Your task to perform on an android device: manage bookmarks in the chrome app Image 0: 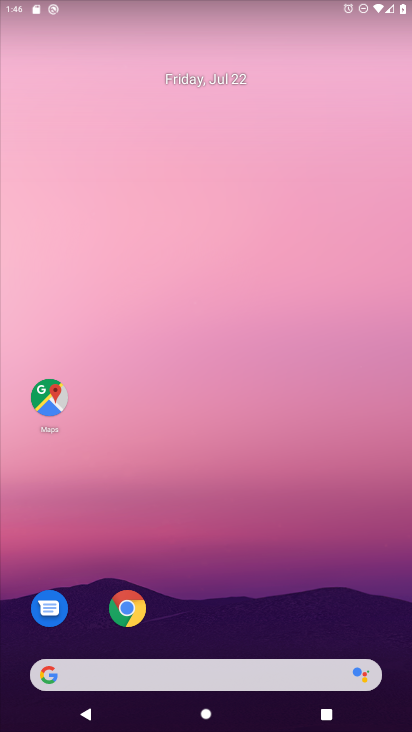
Step 0: drag from (321, 628) to (171, 16)
Your task to perform on an android device: manage bookmarks in the chrome app Image 1: 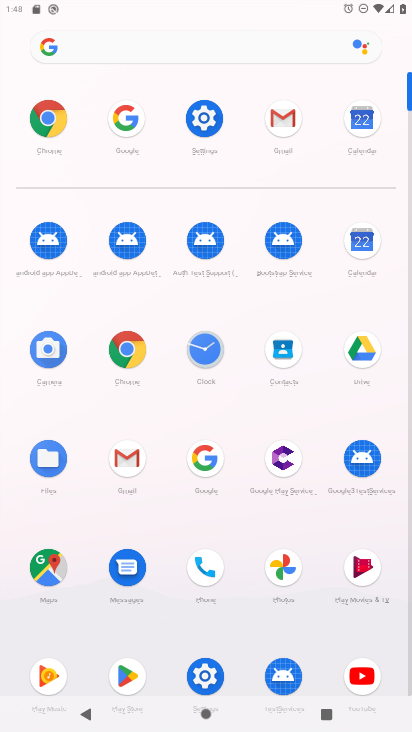
Step 1: click (125, 361)
Your task to perform on an android device: manage bookmarks in the chrome app Image 2: 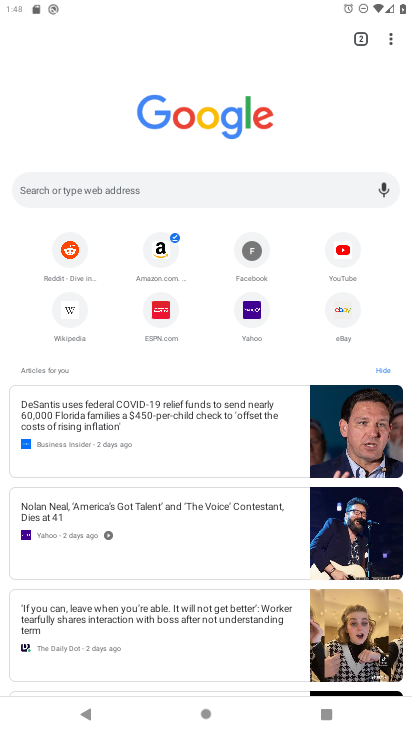
Step 2: click (393, 35)
Your task to perform on an android device: manage bookmarks in the chrome app Image 3: 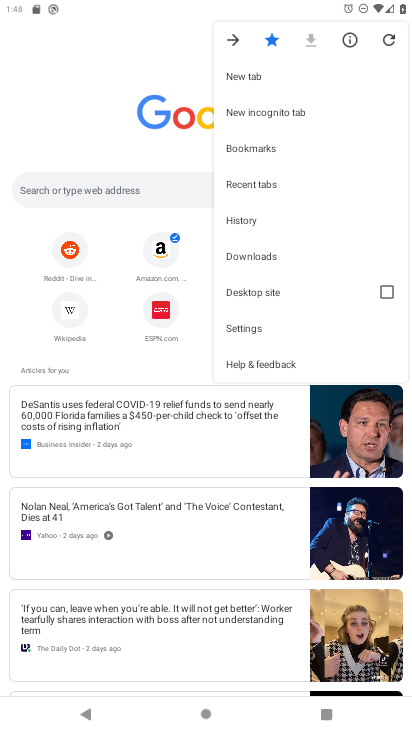
Step 3: click (256, 157)
Your task to perform on an android device: manage bookmarks in the chrome app Image 4: 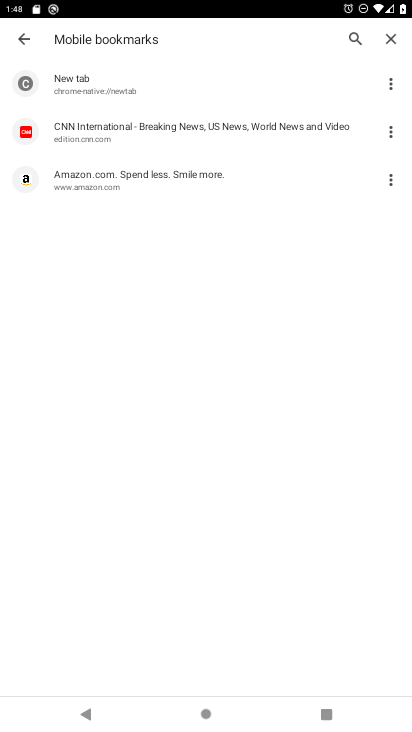
Step 4: task complete